Your task to perform on an android device: Go to Maps Image 0: 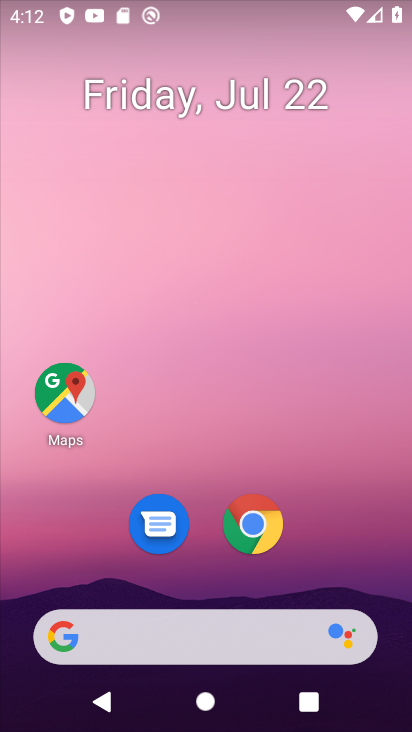
Step 0: click (66, 402)
Your task to perform on an android device: Go to Maps Image 1: 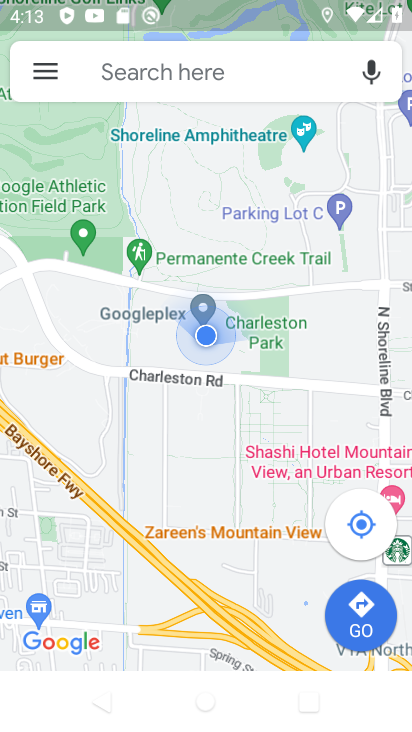
Step 1: task complete